Your task to perform on an android device: toggle notification dots Image 0: 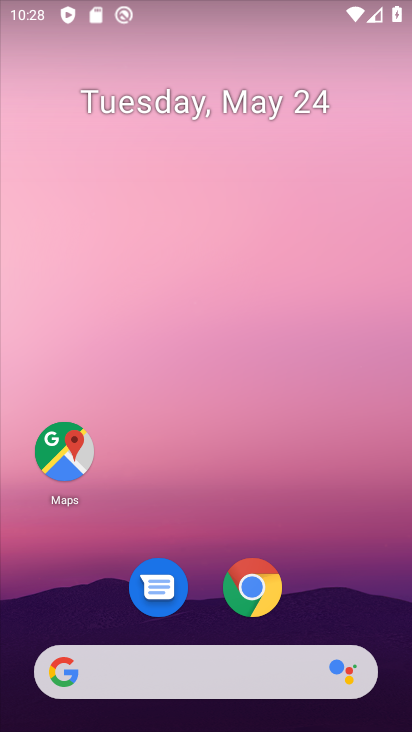
Step 0: drag from (311, 552) to (228, 7)
Your task to perform on an android device: toggle notification dots Image 1: 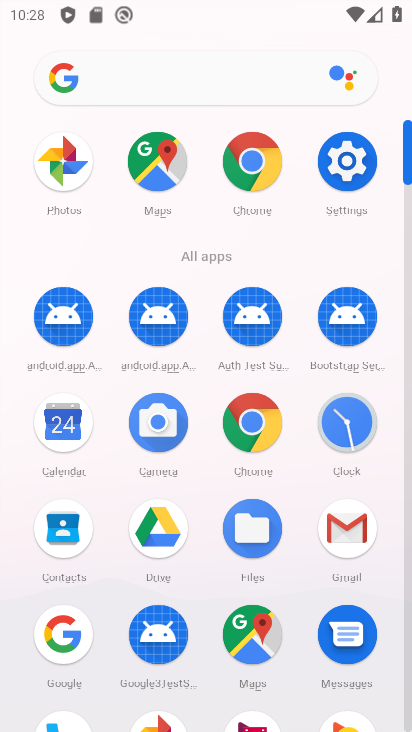
Step 1: drag from (21, 574) to (15, 248)
Your task to perform on an android device: toggle notification dots Image 2: 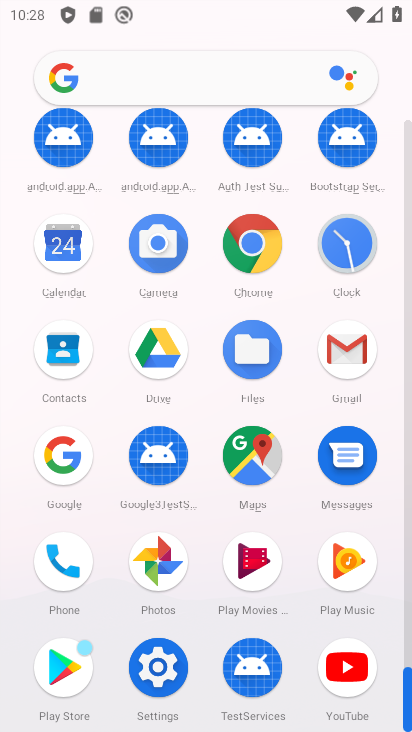
Step 2: click (154, 661)
Your task to perform on an android device: toggle notification dots Image 3: 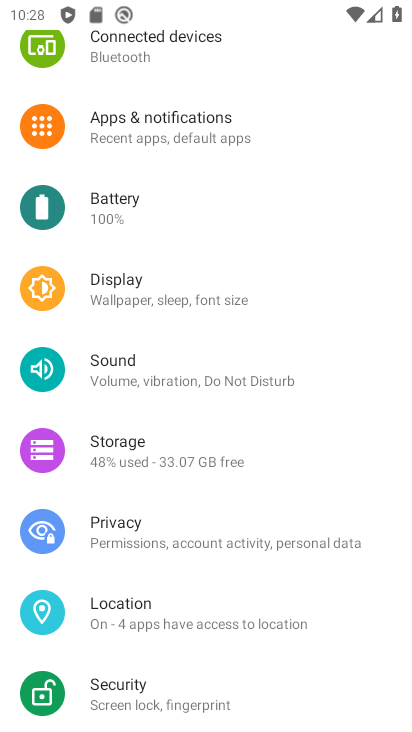
Step 3: click (181, 122)
Your task to perform on an android device: toggle notification dots Image 4: 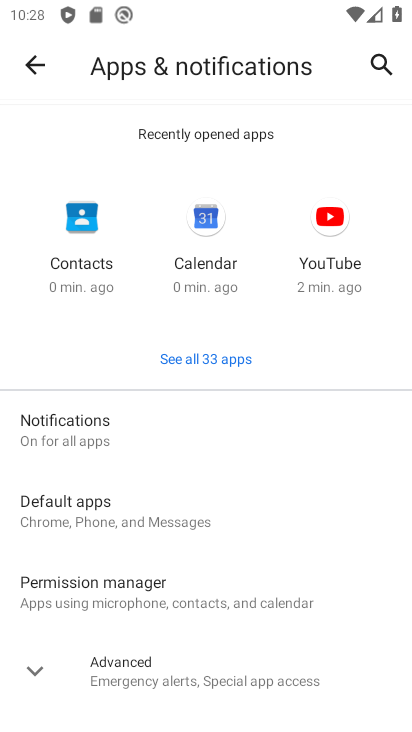
Step 4: drag from (254, 629) to (254, 199)
Your task to perform on an android device: toggle notification dots Image 5: 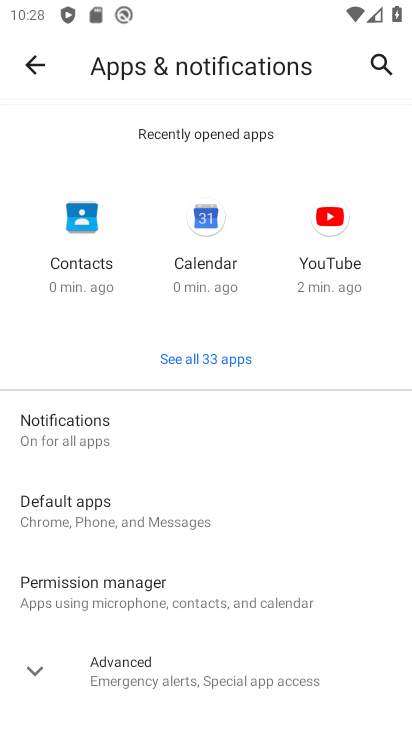
Step 5: click (30, 669)
Your task to perform on an android device: toggle notification dots Image 6: 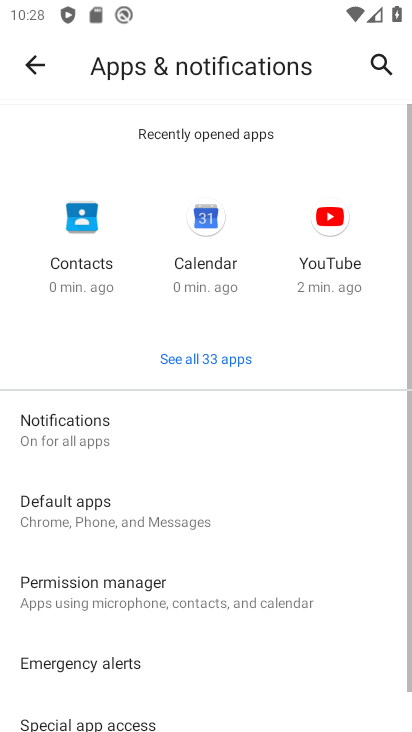
Step 6: drag from (309, 645) to (302, 183)
Your task to perform on an android device: toggle notification dots Image 7: 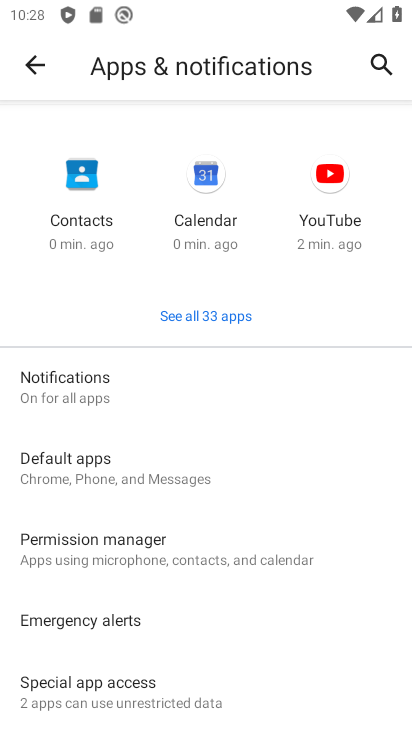
Step 7: click (115, 394)
Your task to perform on an android device: toggle notification dots Image 8: 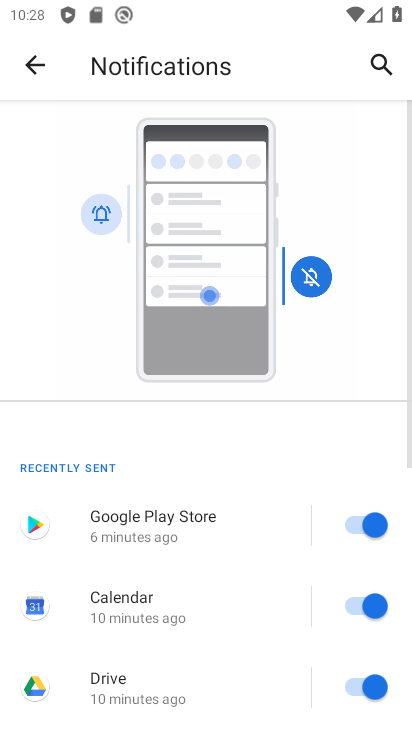
Step 8: drag from (183, 638) to (202, 104)
Your task to perform on an android device: toggle notification dots Image 9: 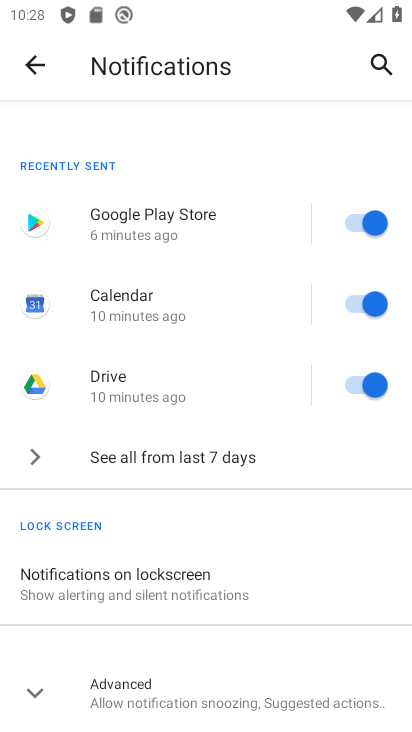
Step 9: click (59, 688)
Your task to perform on an android device: toggle notification dots Image 10: 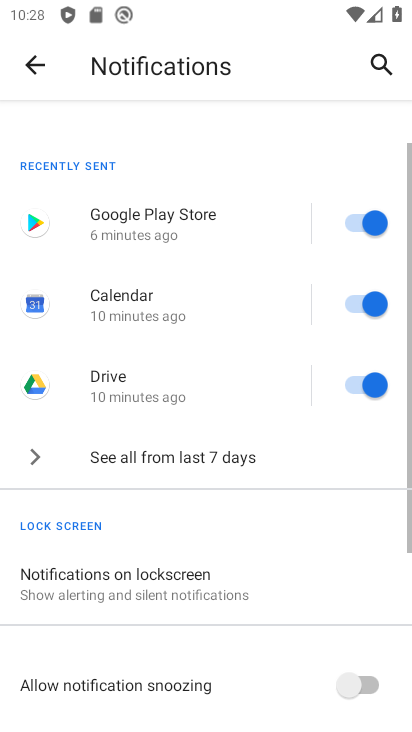
Step 10: drag from (220, 623) to (234, 177)
Your task to perform on an android device: toggle notification dots Image 11: 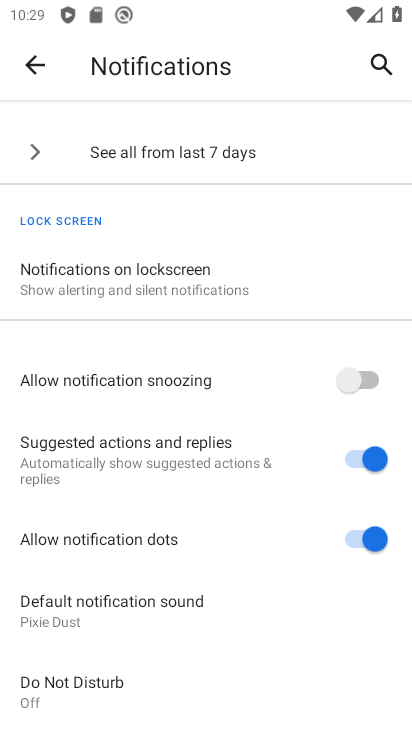
Step 11: click (360, 538)
Your task to perform on an android device: toggle notification dots Image 12: 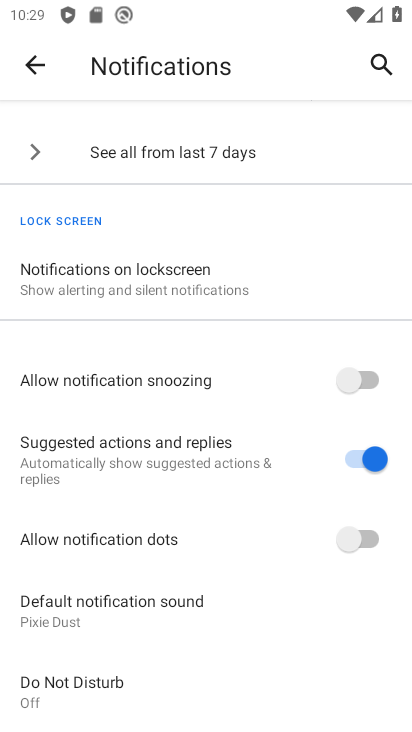
Step 12: task complete